Your task to perform on an android device: View the shopping cart on target.com. Image 0: 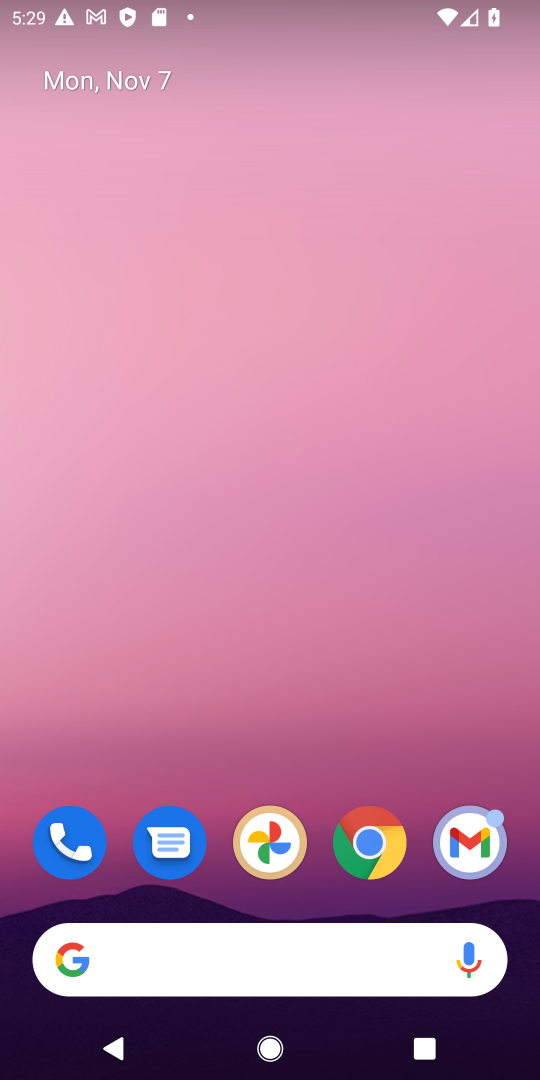
Step 0: drag from (316, 804) to (153, 69)
Your task to perform on an android device: View the shopping cart on target.com. Image 1: 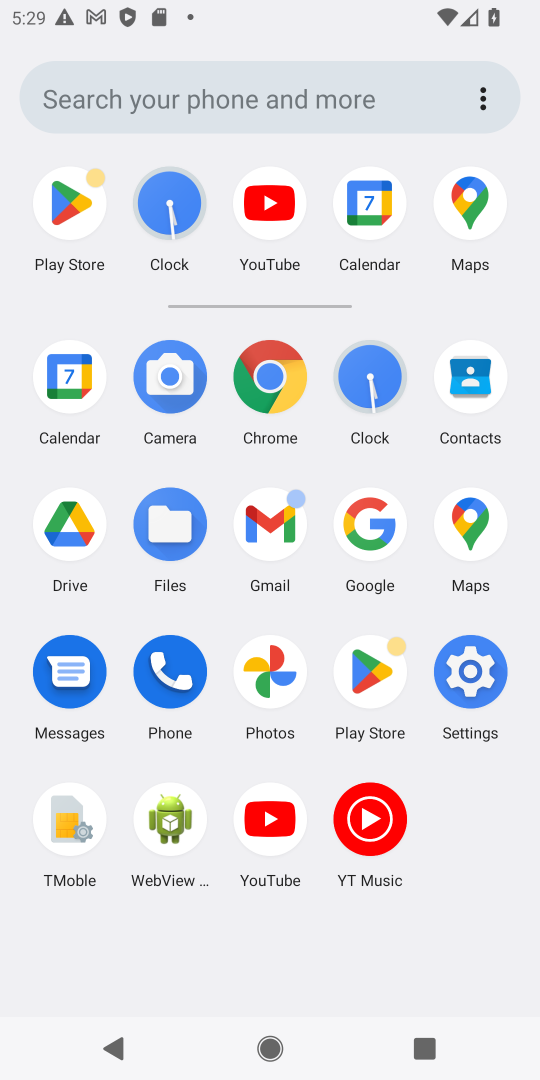
Step 1: click (281, 373)
Your task to perform on an android device: View the shopping cart on target.com. Image 2: 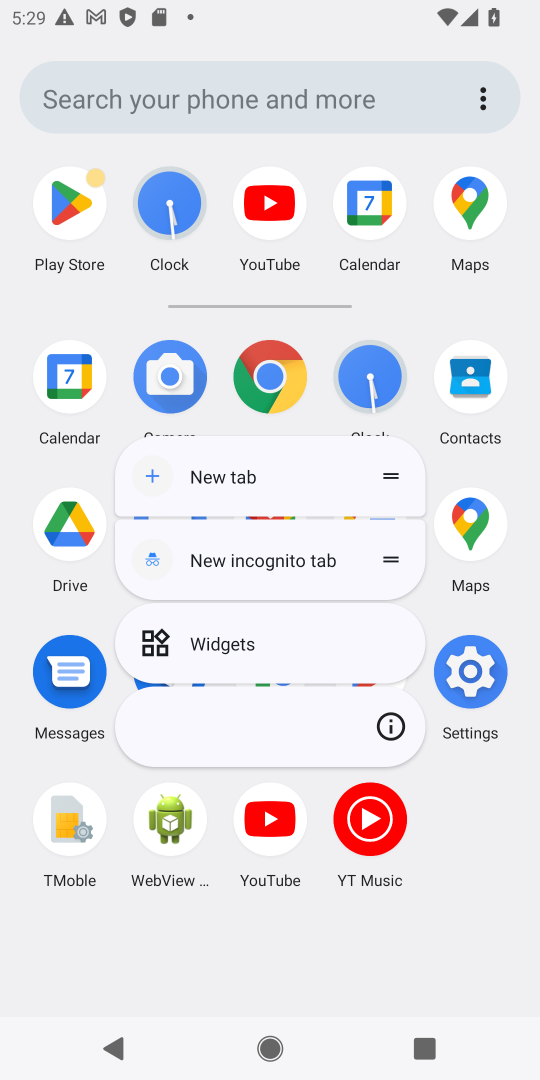
Step 2: click (281, 373)
Your task to perform on an android device: View the shopping cart on target.com. Image 3: 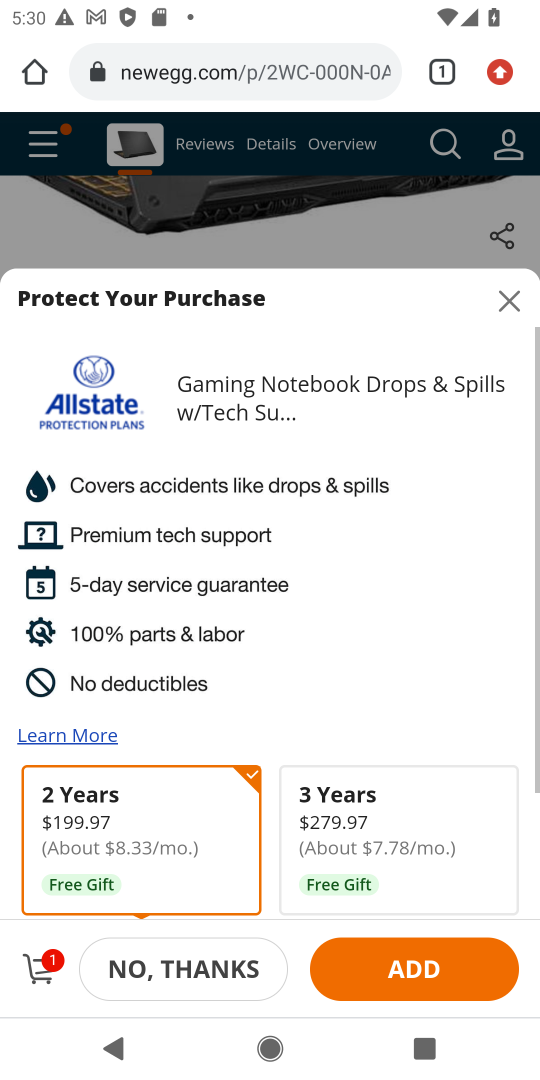
Step 3: click (225, 53)
Your task to perform on an android device: View the shopping cart on target.com. Image 4: 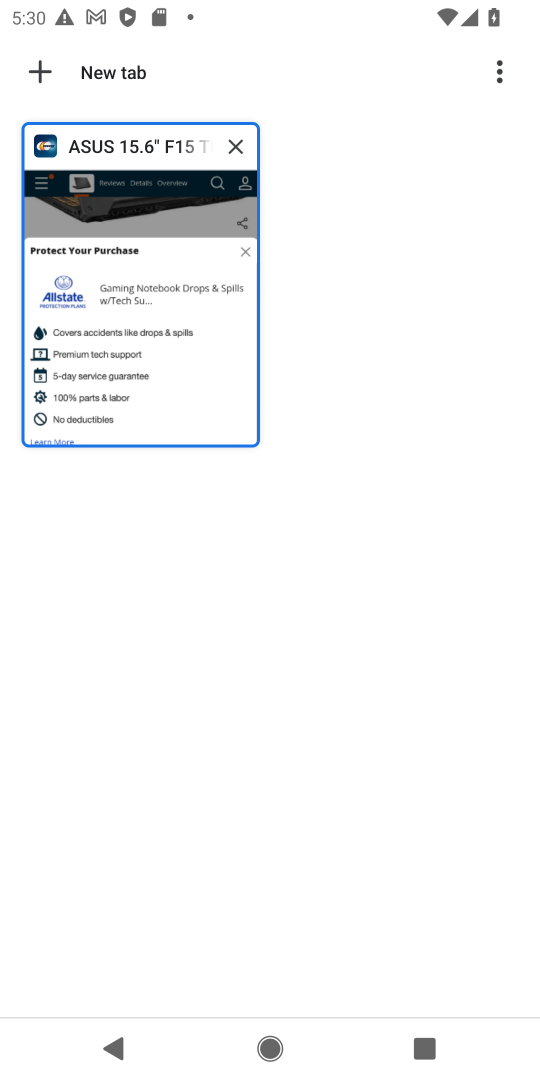
Step 4: press back button
Your task to perform on an android device: View the shopping cart on target.com. Image 5: 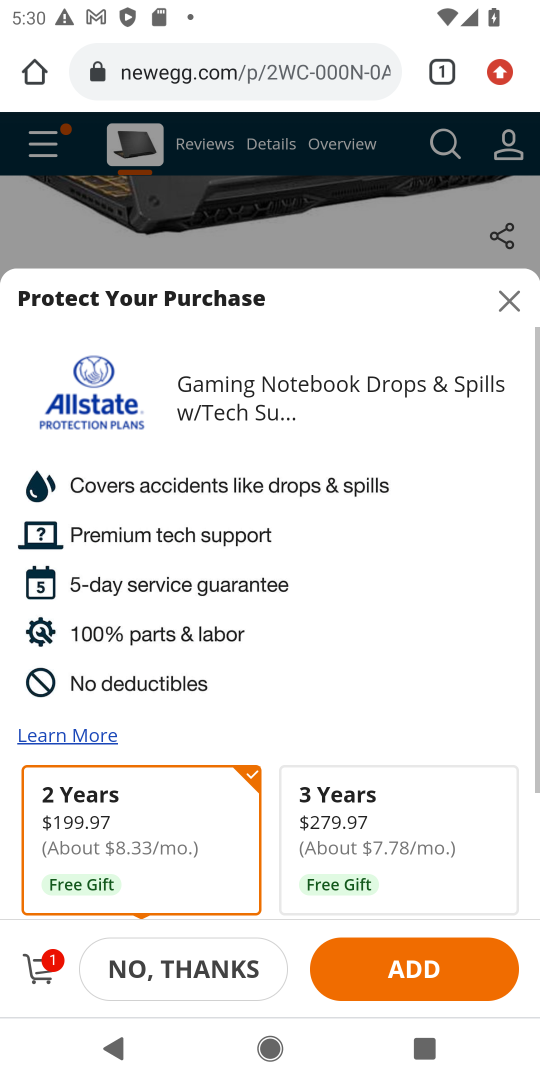
Step 5: click (157, 70)
Your task to perform on an android device: View the shopping cart on target.com. Image 6: 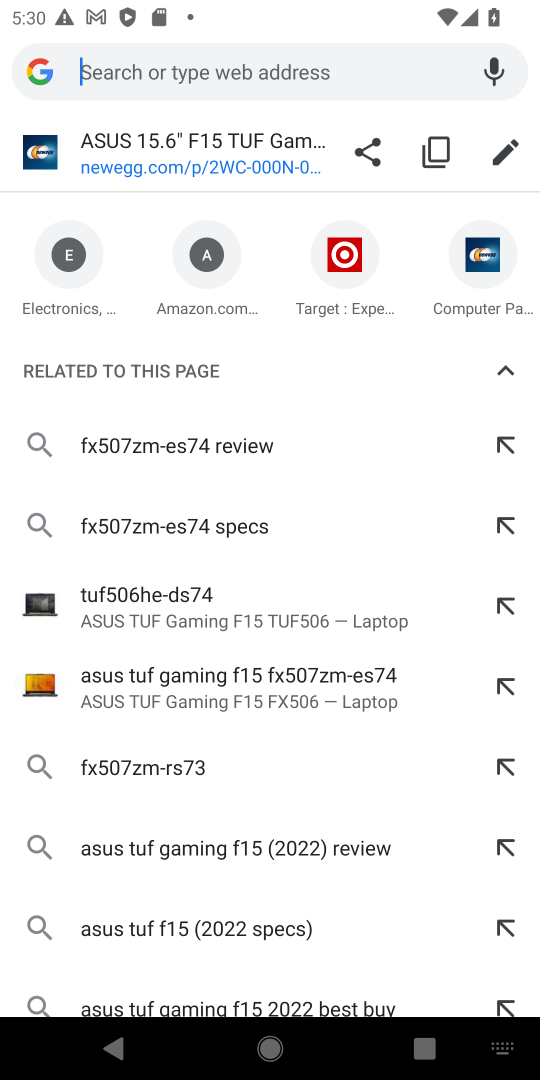
Step 6: type "target.com."
Your task to perform on an android device: View the shopping cart on target.com. Image 7: 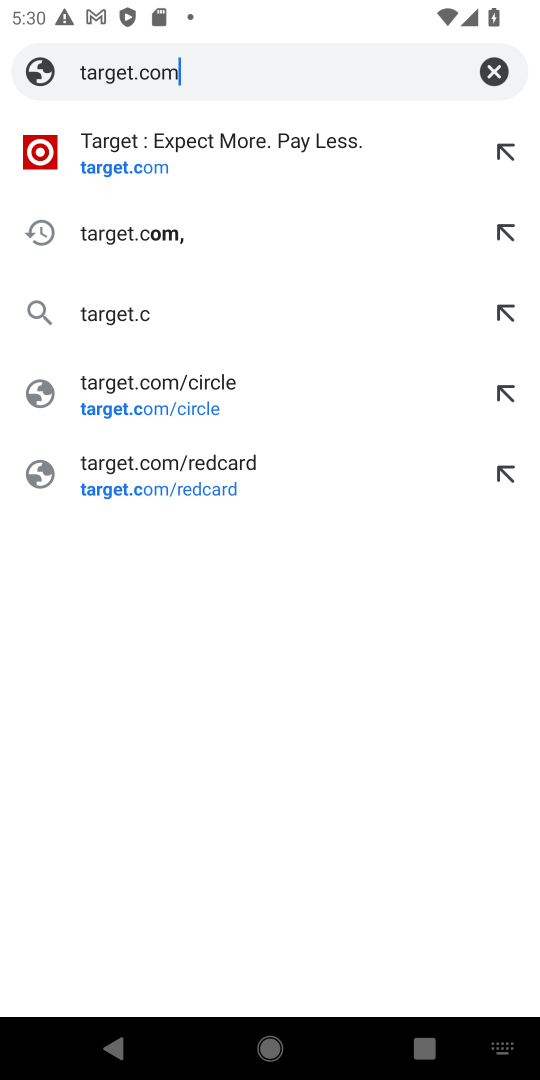
Step 7: press enter
Your task to perform on an android device: View the shopping cart on target.com. Image 8: 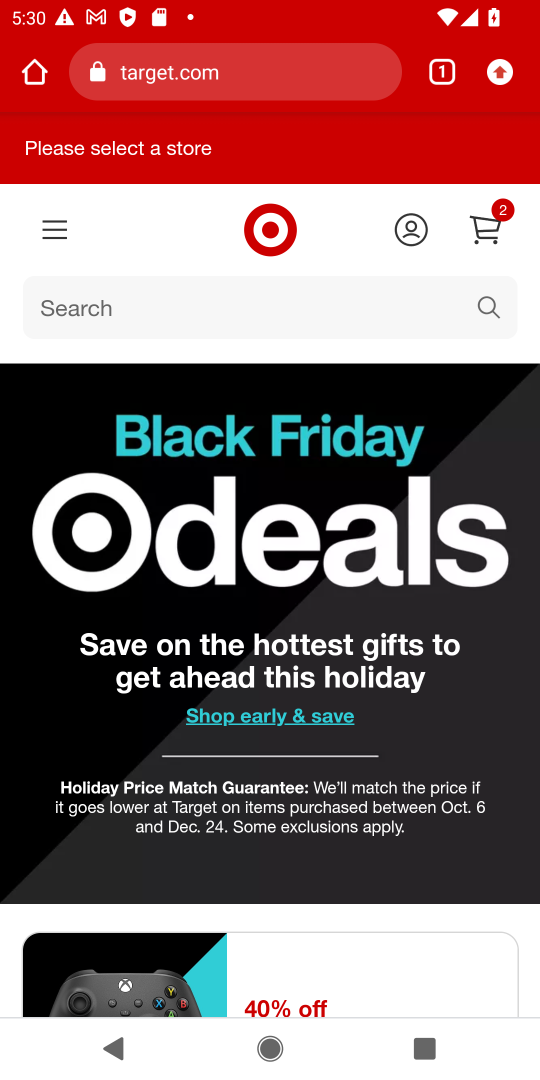
Step 8: click (497, 213)
Your task to perform on an android device: View the shopping cart on target.com. Image 9: 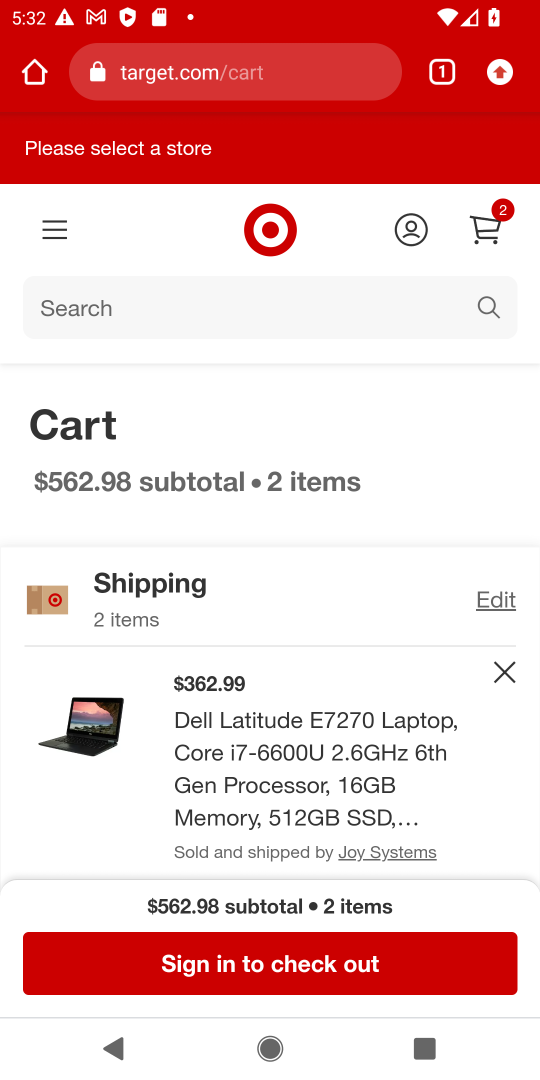
Step 9: task complete